Your task to perform on an android device: Toggle the flashlight Image 0: 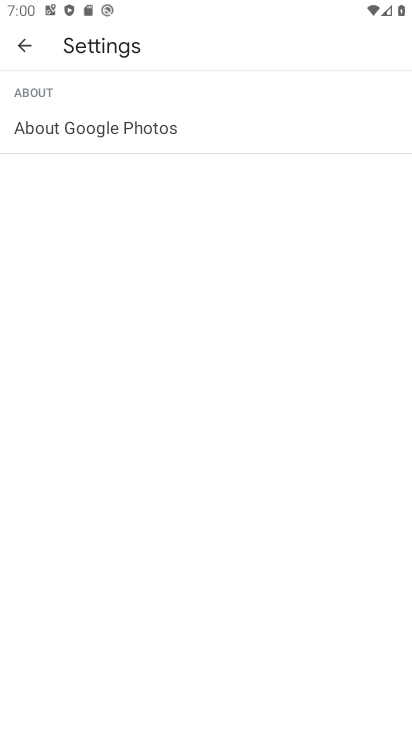
Step 0: press home button
Your task to perform on an android device: Toggle the flashlight Image 1: 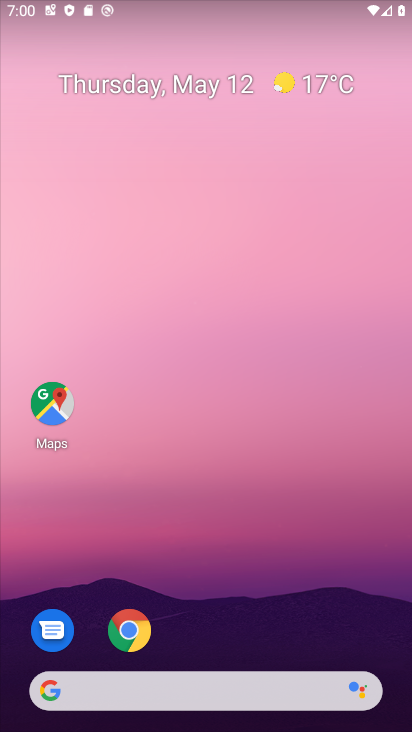
Step 1: drag from (349, 539) to (99, 9)
Your task to perform on an android device: Toggle the flashlight Image 2: 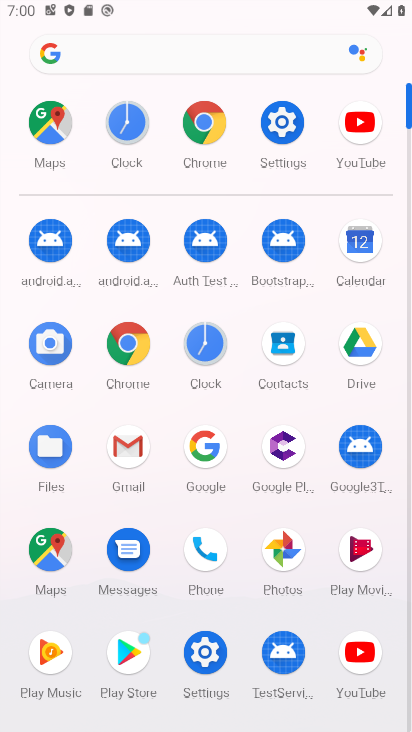
Step 2: click (269, 125)
Your task to perform on an android device: Toggle the flashlight Image 3: 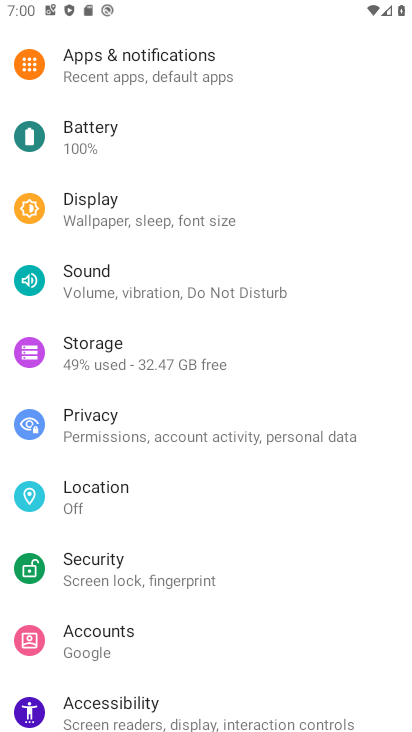
Step 3: task complete